Your task to perform on an android device: Open the calendar and show me this week's events? Image 0: 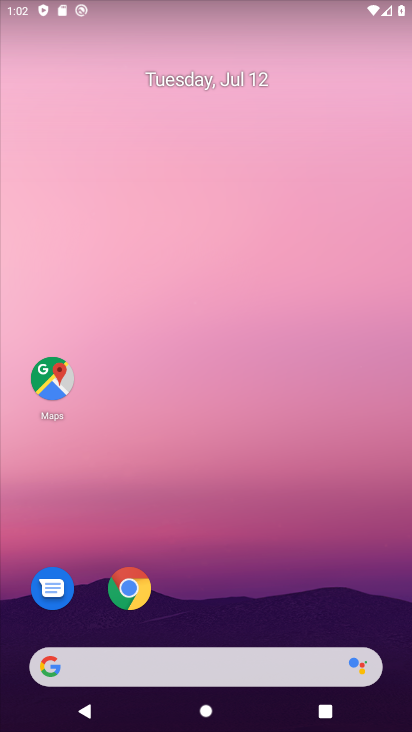
Step 0: drag from (172, 601) to (162, 21)
Your task to perform on an android device: Open the calendar and show me this week's events? Image 1: 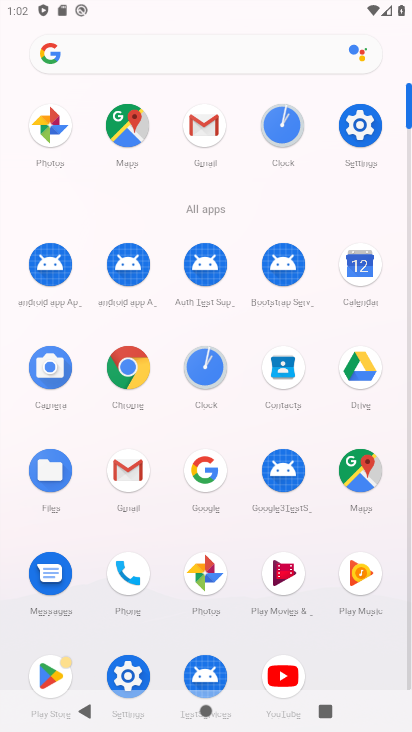
Step 1: click (361, 267)
Your task to perform on an android device: Open the calendar and show me this week's events? Image 2: 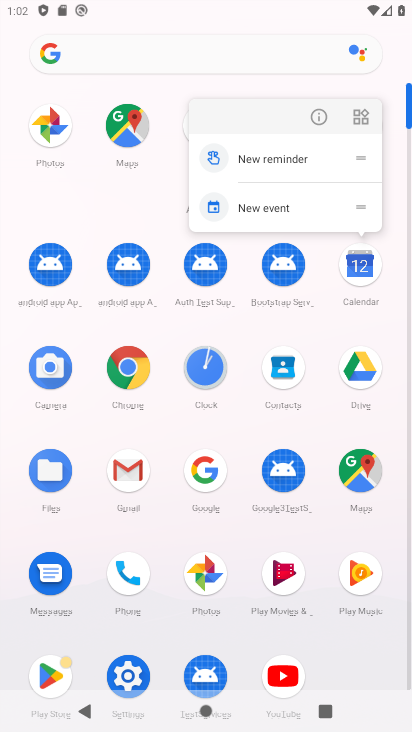
Step 2: click (318, 110)
Your task to perform on an android device: Open the calendar and show me this week's events? Image 3: 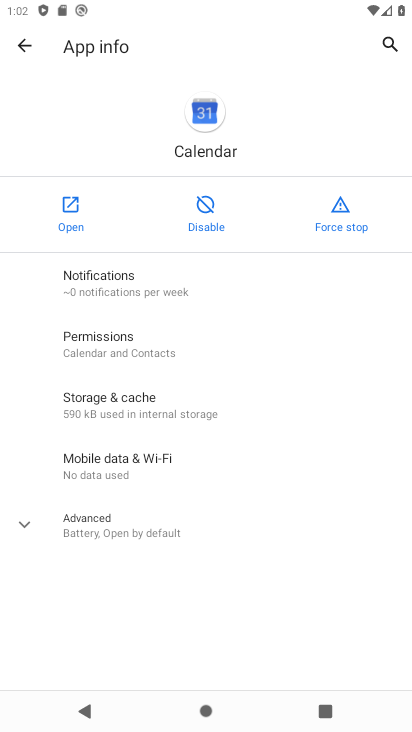
Step 3: click (61, 208)
Your task to perform on an android device: Open the calendar and show me this week's events? Image 4: 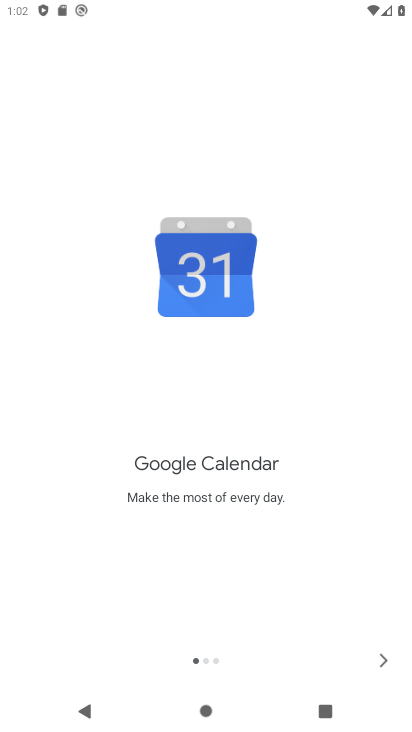
Step 4: click (388, 654)
Your task to perform on an android device: Open the calendar and show me this week's events? Image 5: 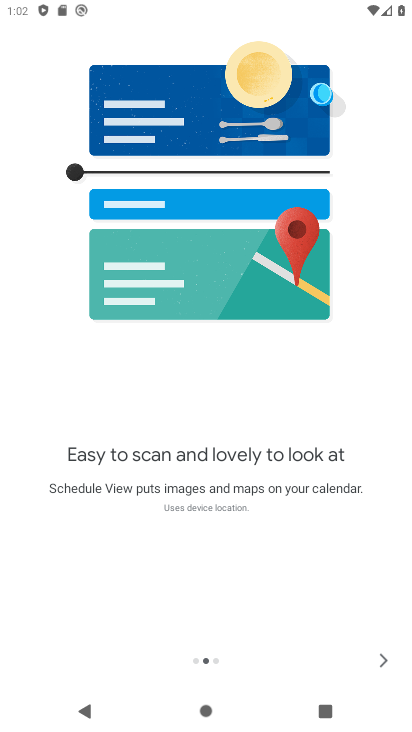
Step 5: click (387, 653)
Your task to perform on an android device: Open the calendar and show me this week's events? Image 6: 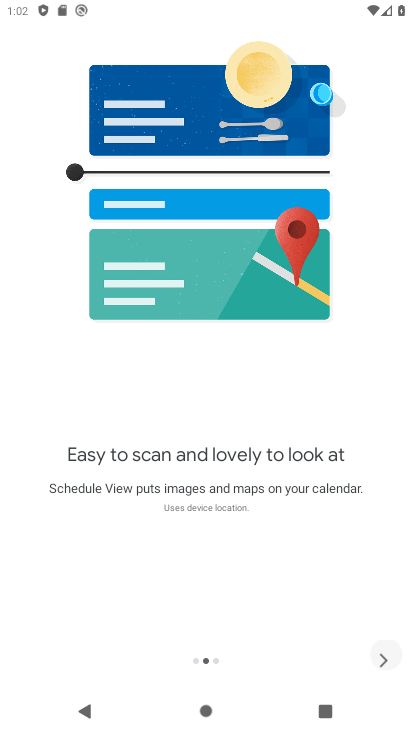
Step 6: click (387, 653)
Your task to perform on an android device: Open the calendar and show me this week's events? Image 7: 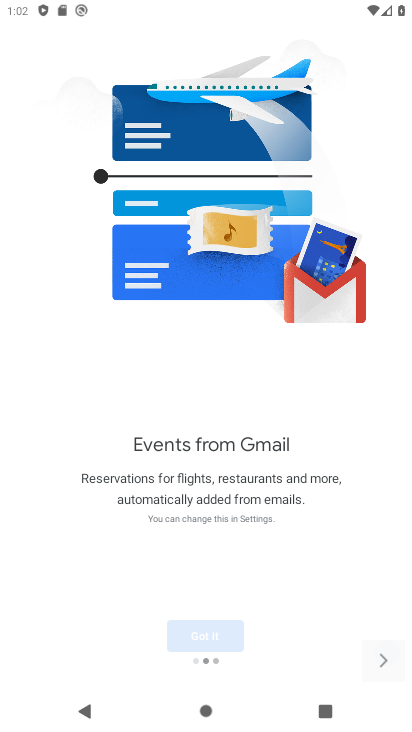
Step 7: click (383, 653)
Your task to perform on an android device: Open the calendar and show me this week's events? Image 8: 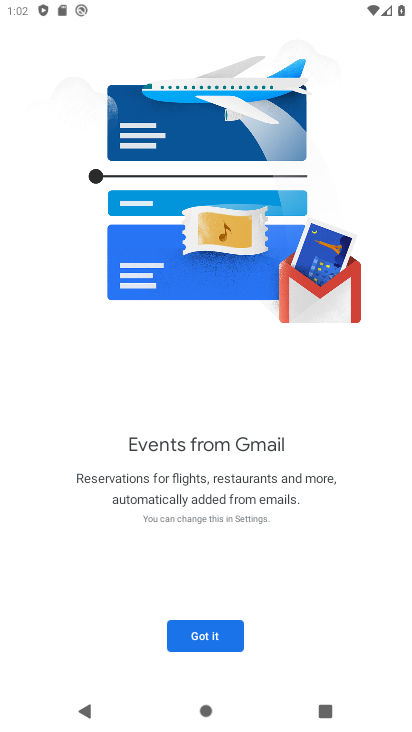
Step 8: click (383, 653)
Your task to perform on an android device: Open the calendar and show me this week's events? Image 9: 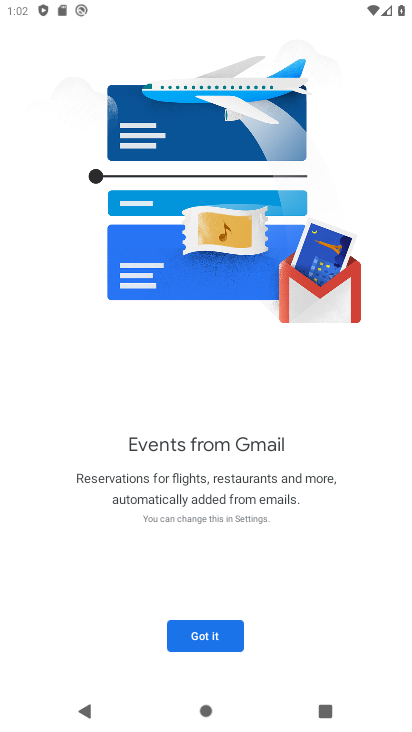
Step 9: click (190, 625)
Your task to perform on an android device: Open the calendar and show me this week's events? Image 10: 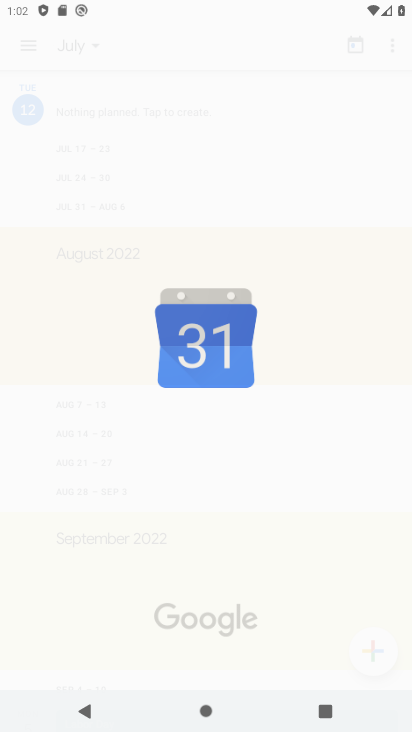
Step 10: drag from (233, 485) to (230, 250)
Your task to perform on an android device: Open the calendar and show me this week's events? Image 11: 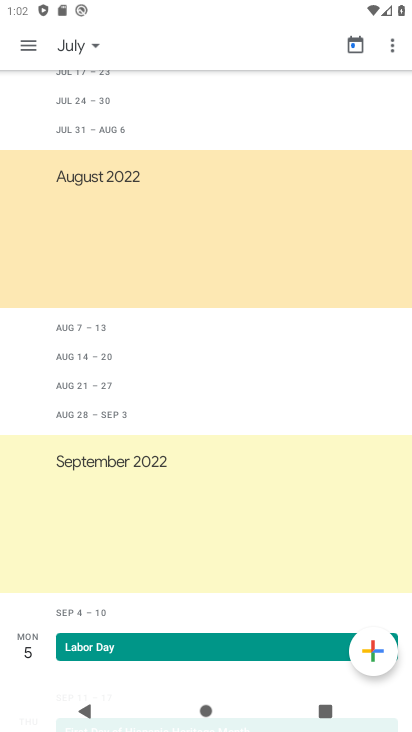
Step 11: drag from (258, 221) to (281, 578)
Your task to perform on an android device: Open the calendar and show me this week's events? Image 12: 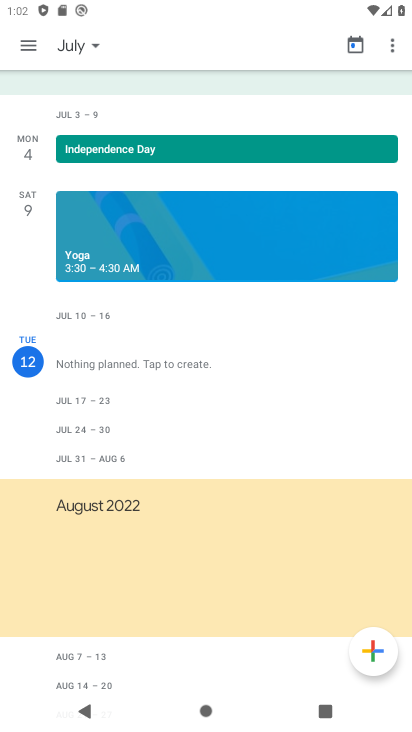
Step 12: drag from (223, 546) to (278, 288)
Your task to perform on an android device: Open the calendar and show me this week's events? Image 13: 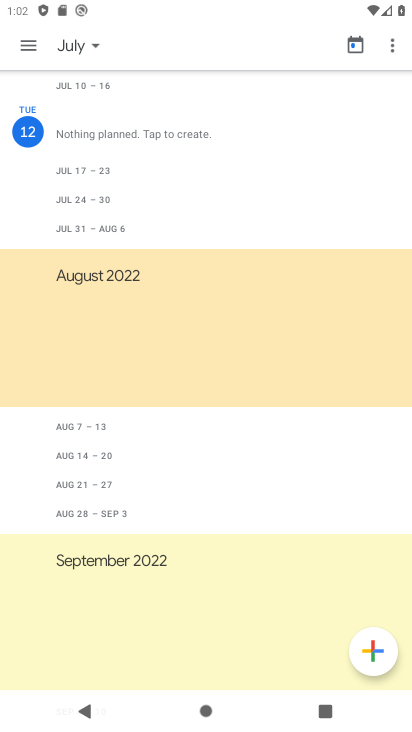
Step 13: drag from (267, 262) to (252, 692)
Your task to perform on an android device: Open the calendar and show me this week's events? Image 14: 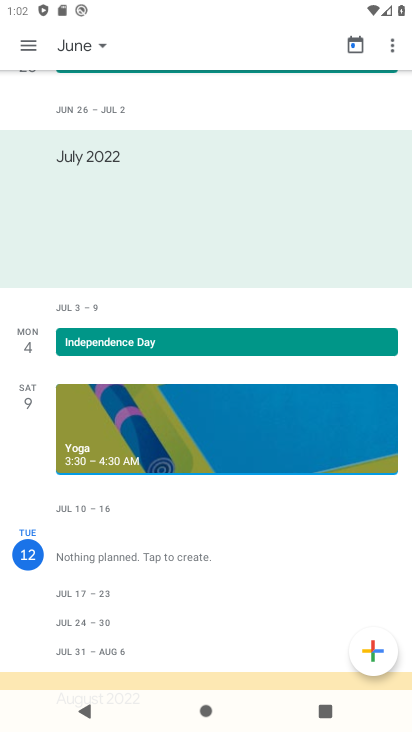
Step 14: click (87, 53)
Your task to perform on an android device: Open the calendar and show me this week's events? Image 15: 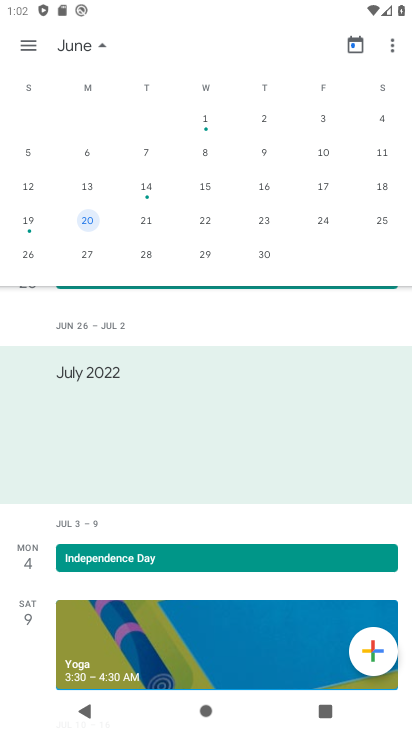
Step 15: drag from (338, 192) to (0, 216)
Your task to perform on an android device: Open the calendar and show me this week's events? Image 16: 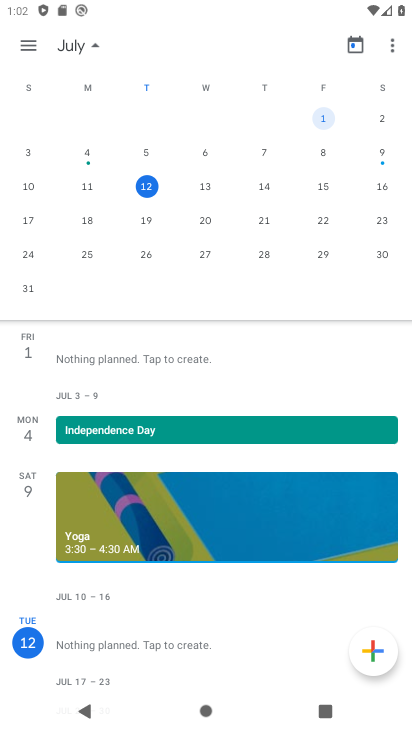
Step 16: click (142, 186)
Your task to perform on an android device: Open the calendar and show me this week's events? Image 17: 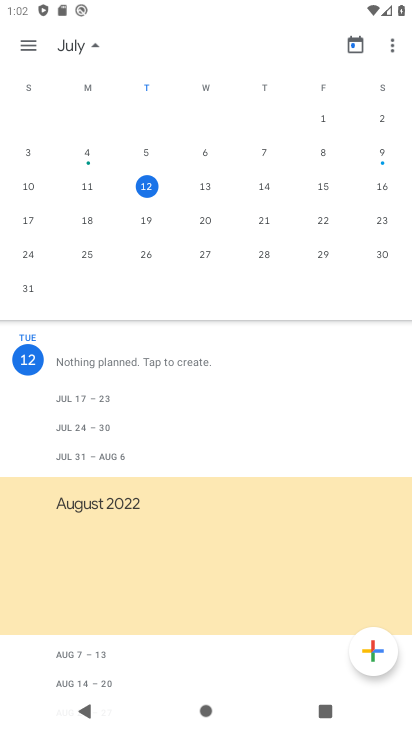
Step 17: task complete